Your task to perform on an android device: What is the recent news? Image 0: 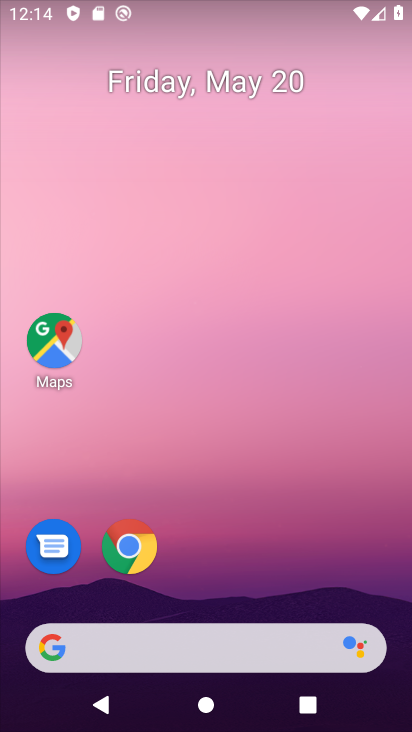
Step 0: click (196, 649)
Your task to perform on an android device: What is the recent news? Image 1: 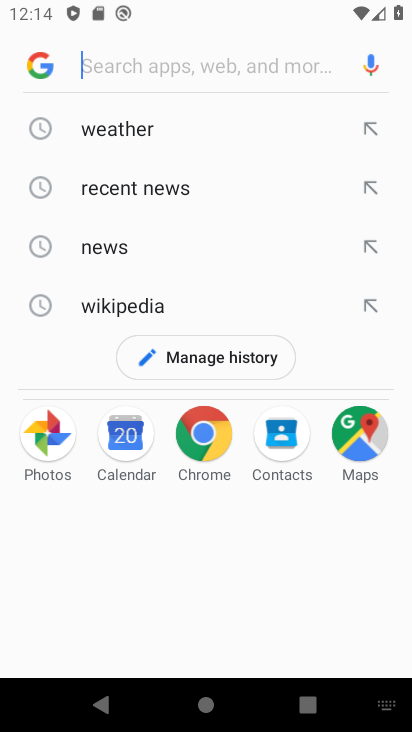
Step 1: click (106, 191)
Your task to perform on an android device: What is the recent news? Image 2: 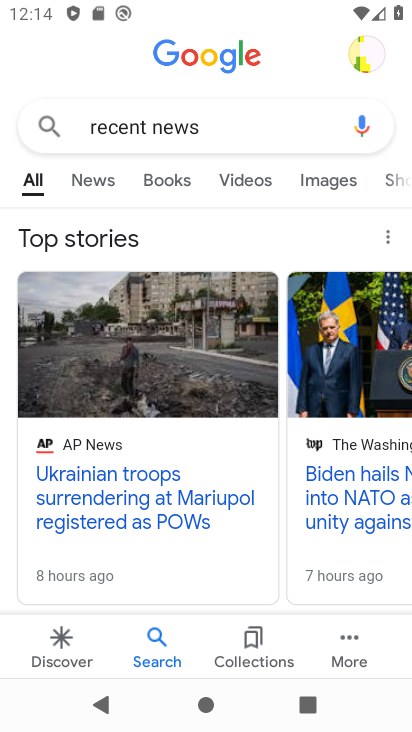
Step 2: click (103, 175)
Your task to perform on an android device: What is the recent news? Image 3: 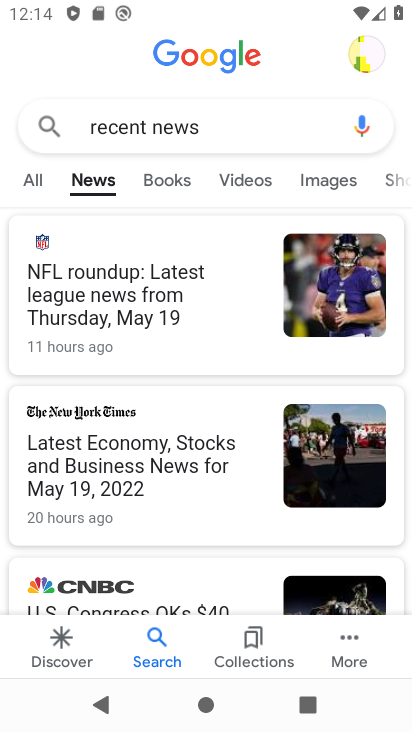
Step 3: task complete